Your task to perform on an android device: Check the weather Image 0: 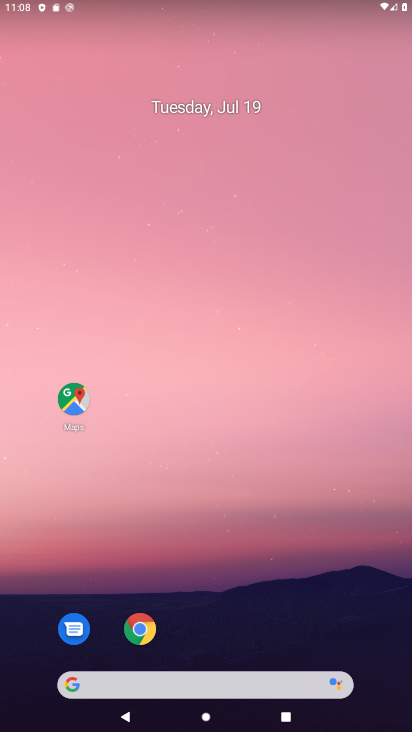
Step 0: drag from (373, 700) to (322, 54)
Your task to perform on an android device: Check the weather Image 1: 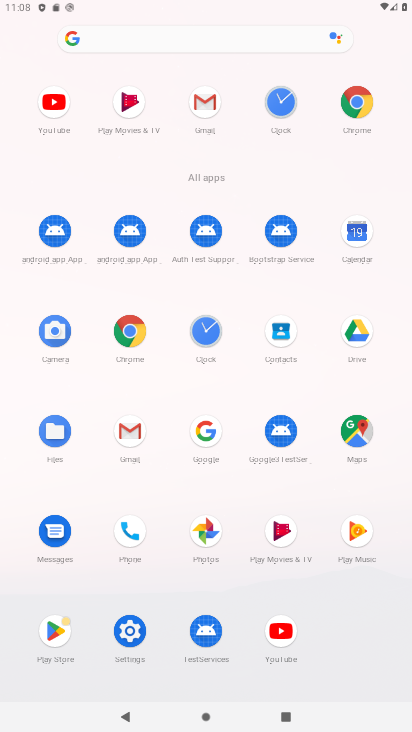
Step 1: click (202, 426)
Your task to perform on an android device: Check the weather Image 2: 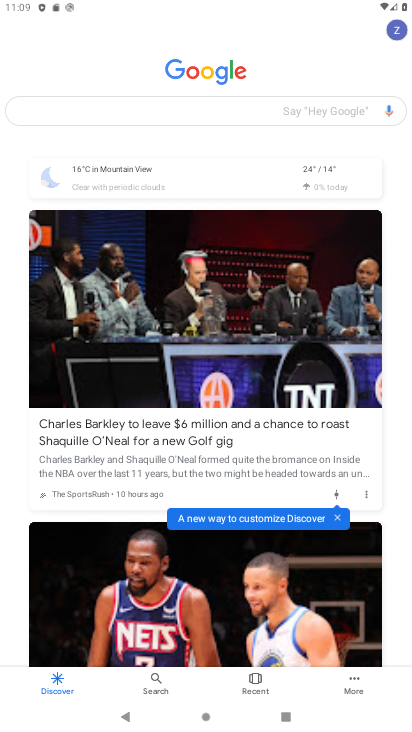
Step 2: click (308, 175)
Your task to perform on an android device: Check the weather Image 3: 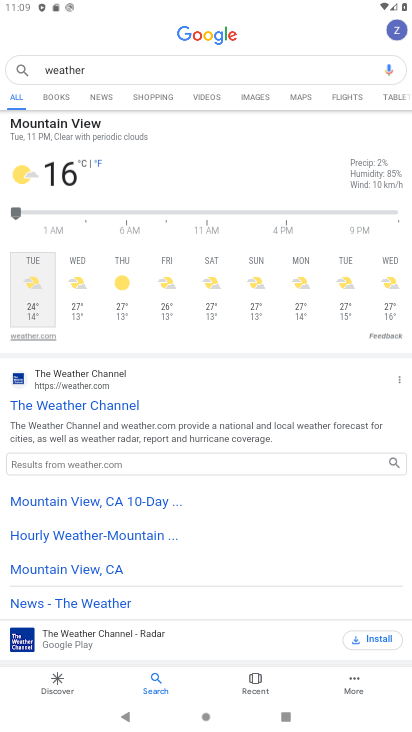
Step 3: task complete